Your task to perform on an android device: Open notification settings Image 0: 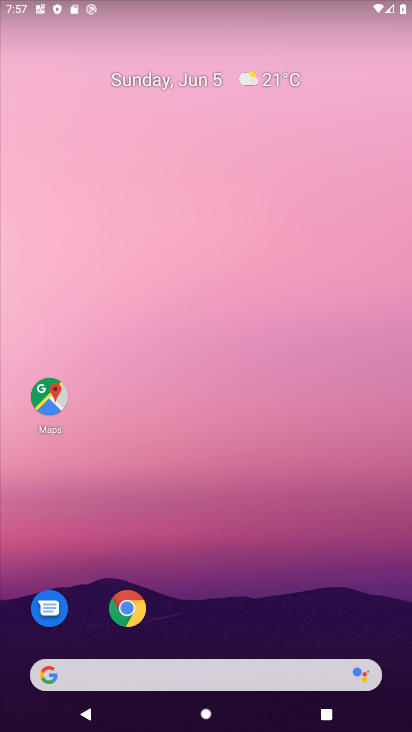
Step 0: drag from (248, 602) to (271, 222)
Your task to perform on an android device: Open notification settings Image 1: 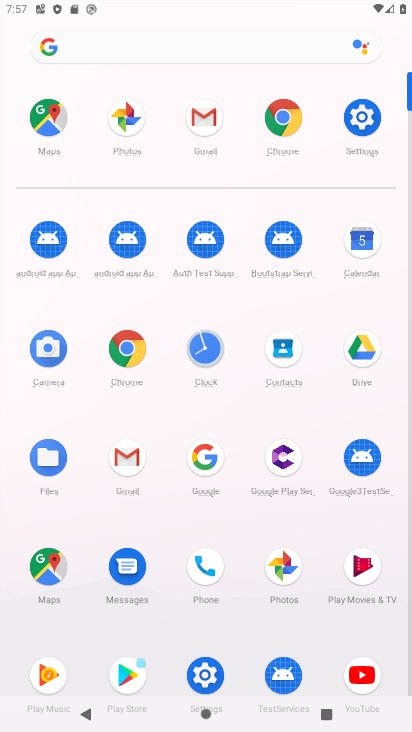
Step 1: click (198, 668)
Your task to perform on an android device: Open notification settings Image 2: 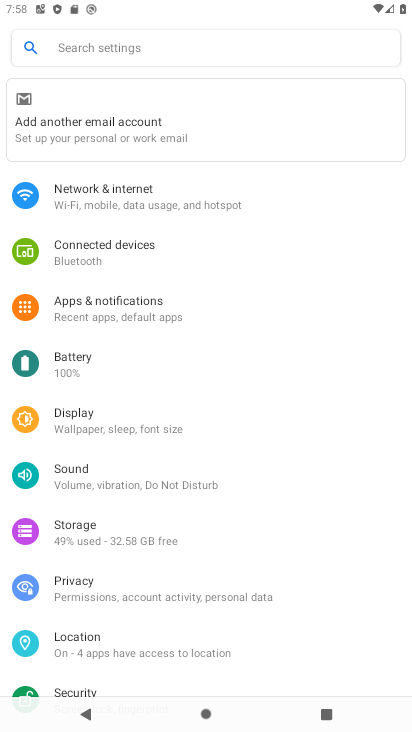
Step 2: click (164, 302)
Your task to perform on an android device: Open notification settings Image 3: 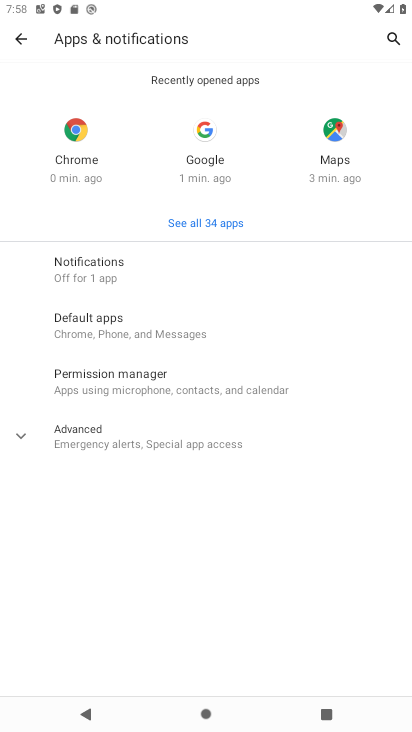
Step 3: click (157, 272)
Your task to perform on an android device: Open notification settings Image 4: 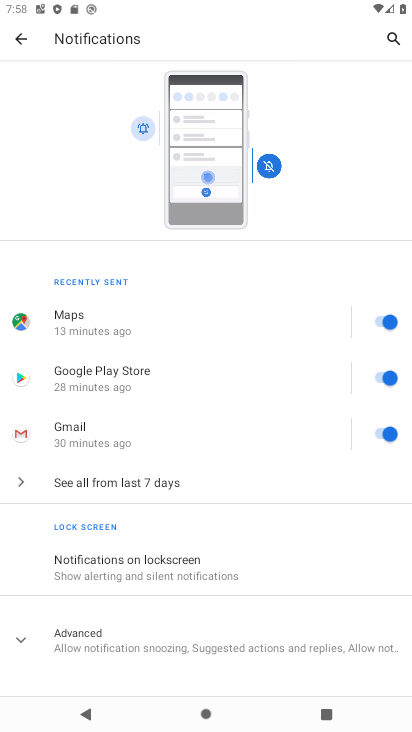
Step 4: task complete